Your task to perform on an android device: Check the weather Image 0: 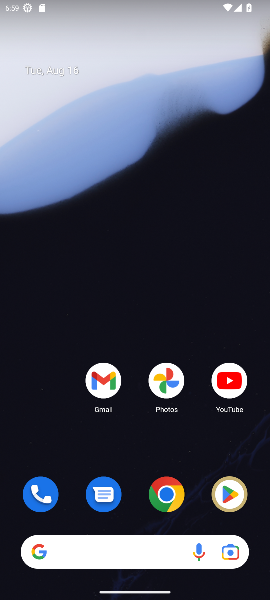
Step 0: drag from (52, 404) to (93, 81)
Your task to perform on an android device: Check the weather Image 1: 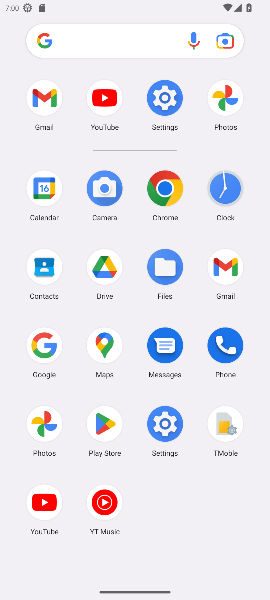
Step 1: press home button
Your task to perform on an android device: Check the weather Image 2: 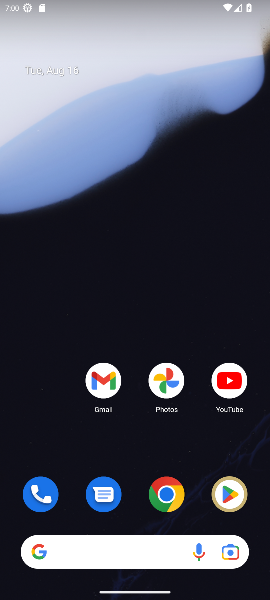
Step 2: click (133, 555)
Your task to perform on an android device: Check the weather Image 3: 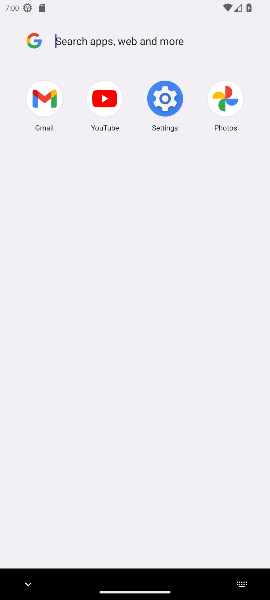
Step 3: task complete